Your task to perform on an android device: turn off wifi Image 0: 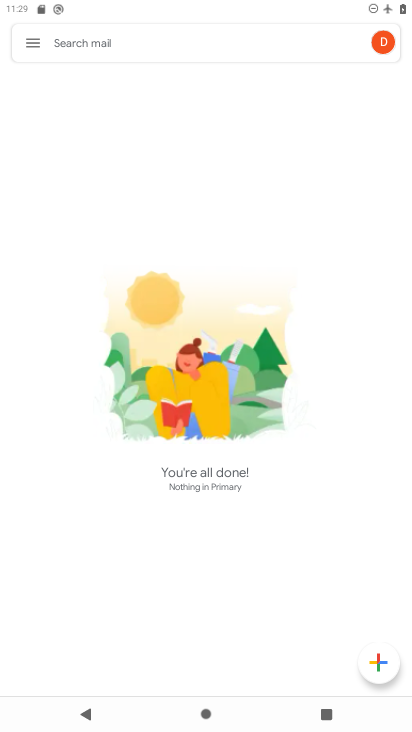
Step 0: drag from (203, 588) to (204, 264)
Your task to perform on an android device: turn off wifi Image 1: 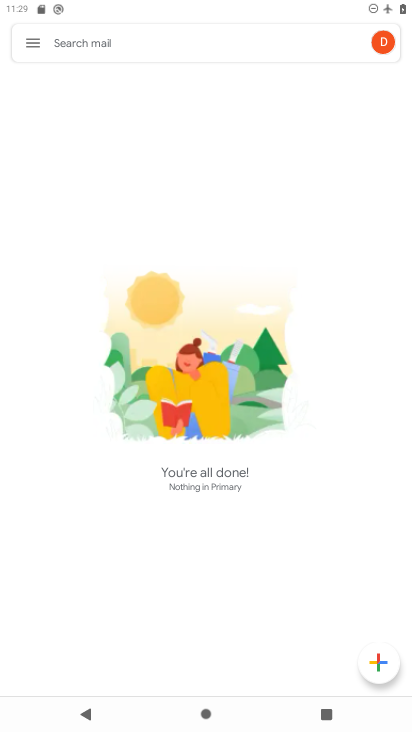
Step 1: press home button
Your task to perform on an android device: turn off wifi Image 2: 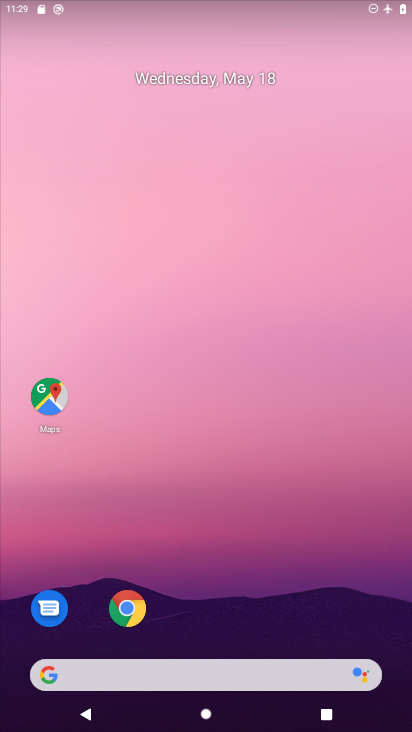
Step 2: drag from (221, 598) to (228, 100)
Your task to perform on an android device: turn off wifi Image 3: 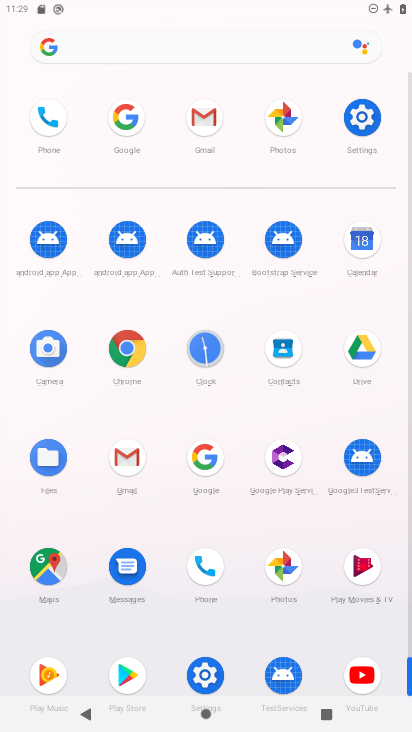
Step 3: click (361, 117)
Your task to perform on an android device: turn off wifi Image 4: 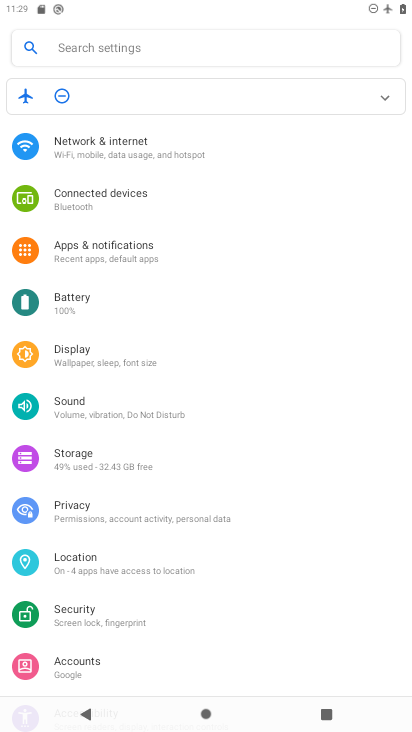
Step 4: click (117, 140)
Your task to perform on an android device: turn off wifi Image 5: 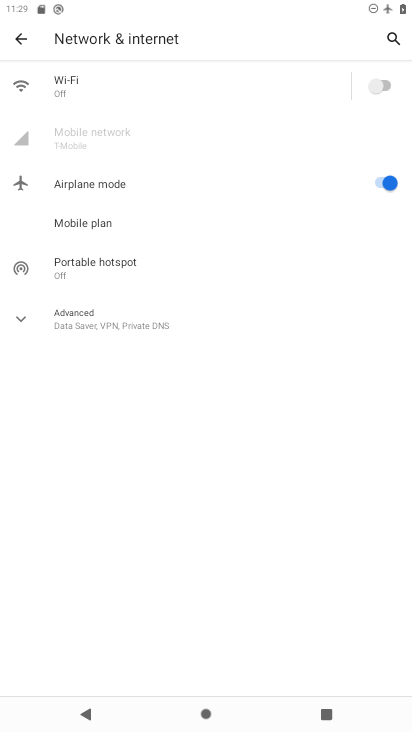
Step 5: task complete